Your task to perform on an android device: Open calendar and show me the fourth week of next month Image 0: 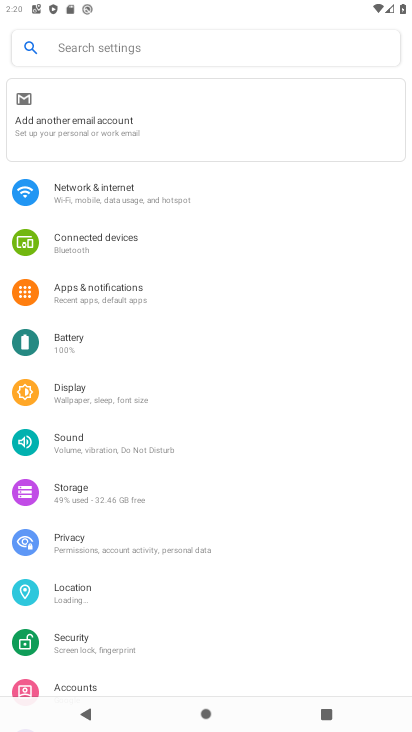
Step 0: press home button
Your task to perform on an android device: Open calendar and show me the fourth week of next month Image 1: 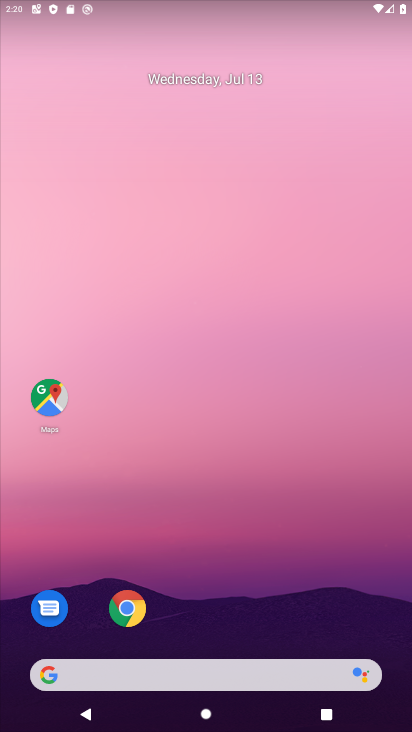
Step 1: drag from (245, 1) to (267, 138)
Your task to perform on an android device: Open calendar and show me the fourth week of next month Image 2: 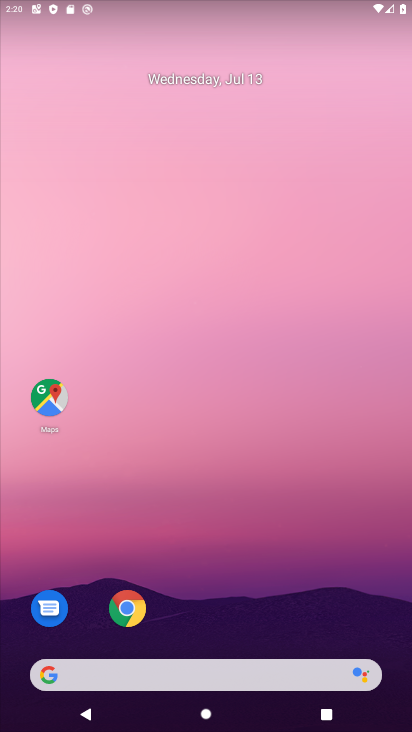
Step 2: drag from (233, 609) to (248, 105)
Your task to perform on an android device: Open calendar and show me the fourth week of next month Image 3: 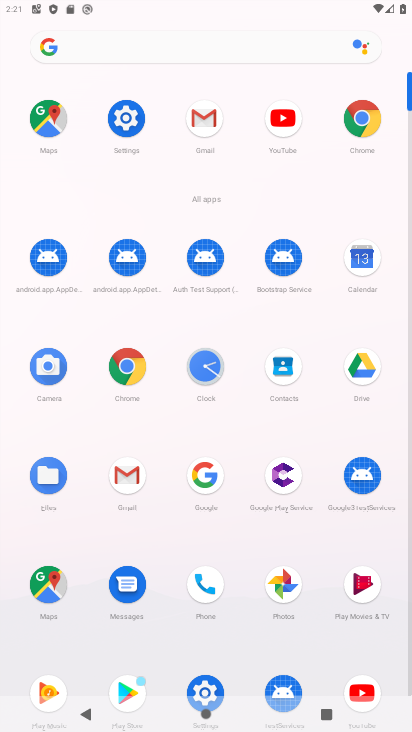
Step 3: click (354, 263)
Your task to perform on an android device: Open calendar and show me the fourth week of next month Image 4: 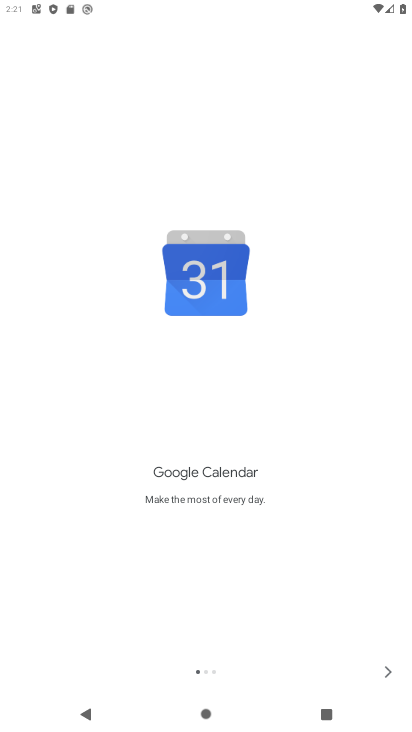
Step 4: click (387, 668)
Your task to perform on an android device: Open calendar and show me the fourth week of next month Image 5: 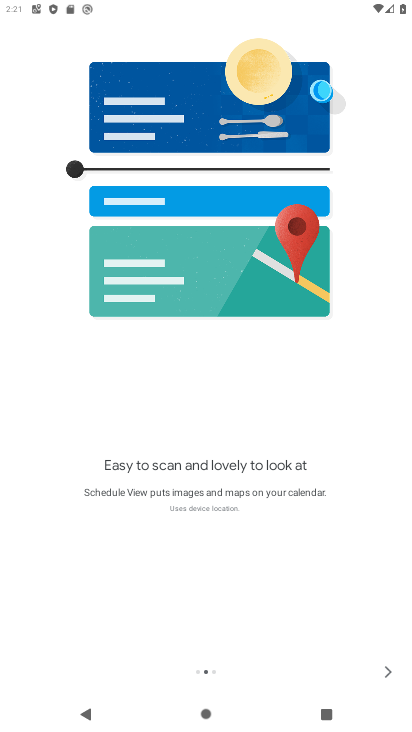
Step 5: click (387, 668)
Your task to perform on an android device: Open calendar and show me the fourth week of next month Image 6: 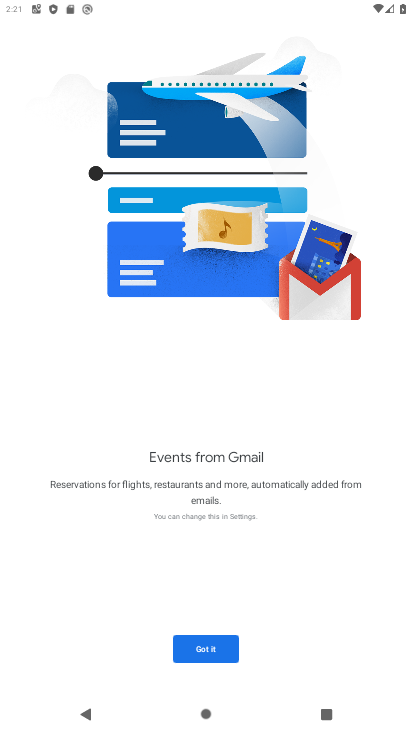
Step 6: click (223, 644)
Your task to perform on an android device: Open calendar and show me the fourth week of next month Image 7: 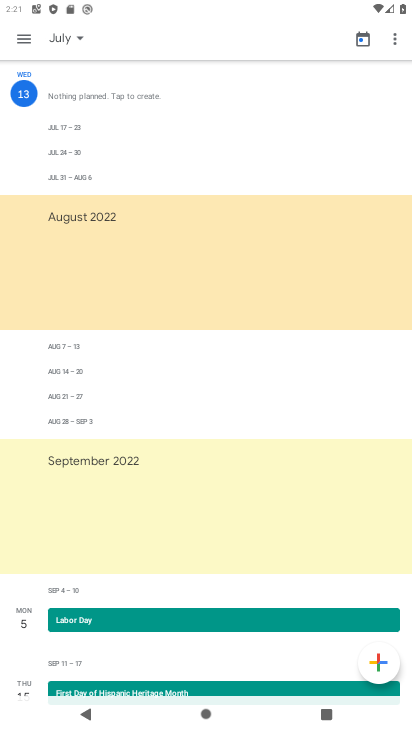
Step 7: click (64, 34)
Your task to perform on an android device: Open calendar and show me the fourth week of next month Image 8: 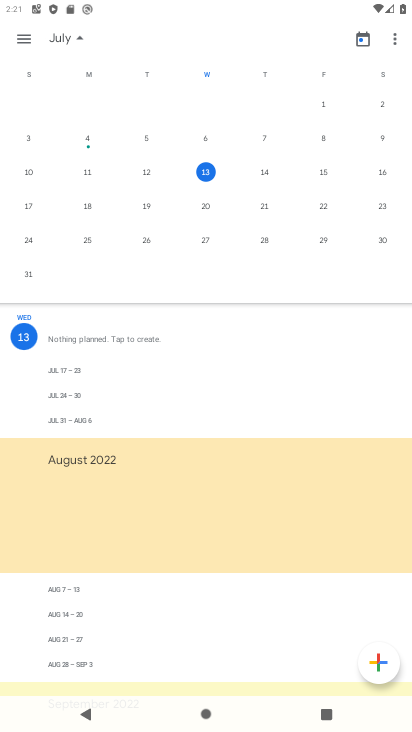
Step 8: drag from (252, 196) to (0, 167)
Your task to perform on an android device: Open calendar and show me the fourth week of next month Image 9: 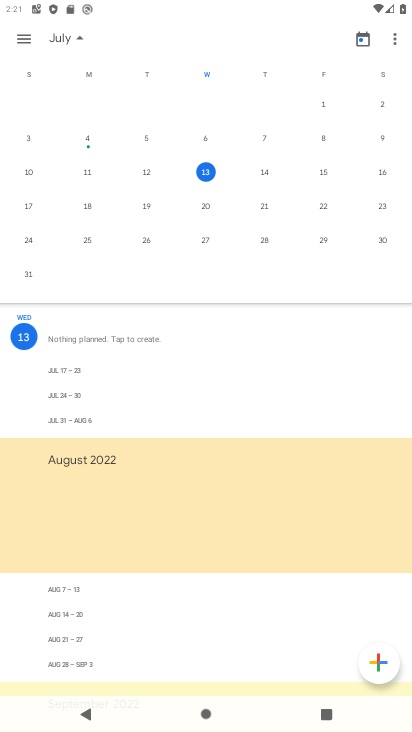
Step 9: drag from (228, 203) to (9, 190)
Your task to perform on an android device: Open calendar and show me the fourth week of next month Image 10: 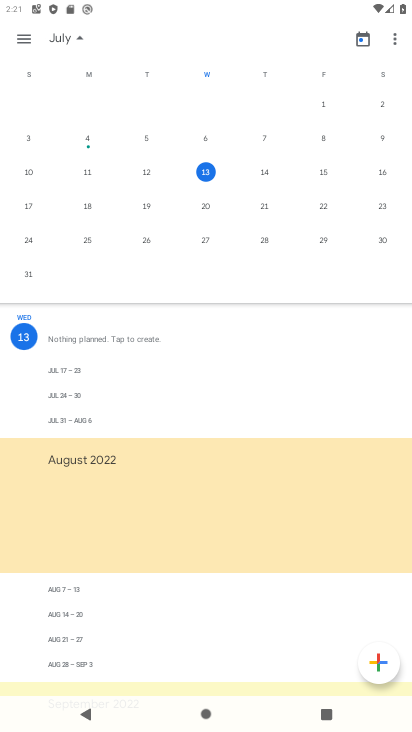
Step 10: drag from (347, 171) to (96, 166)
Your task to perform on an android device: Open calendar and show me the fourth week of next month Image 11: 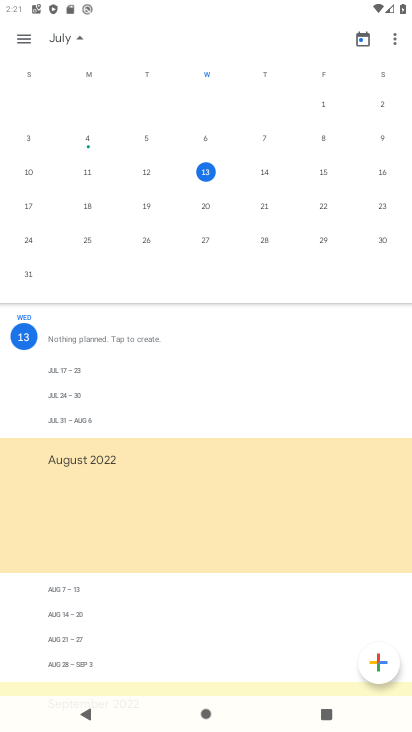
Step 11: drag from (274, 224) to (46, 177)
Your task to perform on an android device: Open calendar and show me the fourth week of next month Image 12: 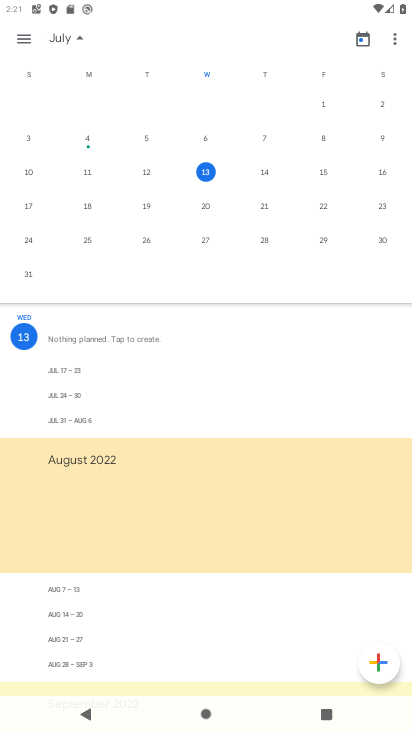
Step 12: drag from (364, 182) to (1, 145)
Your task to perform on an android device: Open calendar and show me the fourth week of next month Image 13: 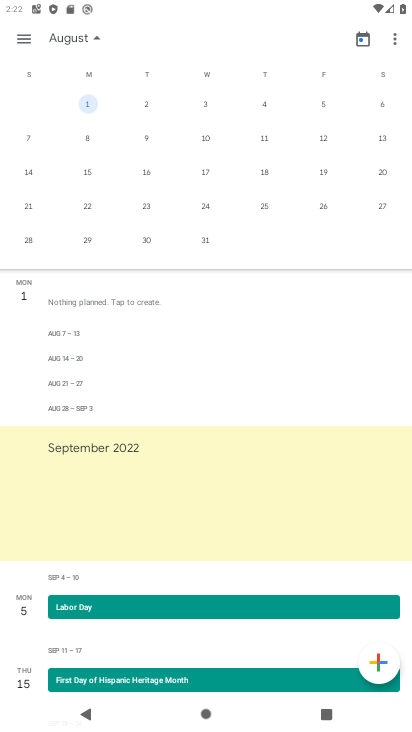
Step 13: click (29, 205)
Your task to perform on an android device: Open calendar and show me the fourth week of next month Image 14: 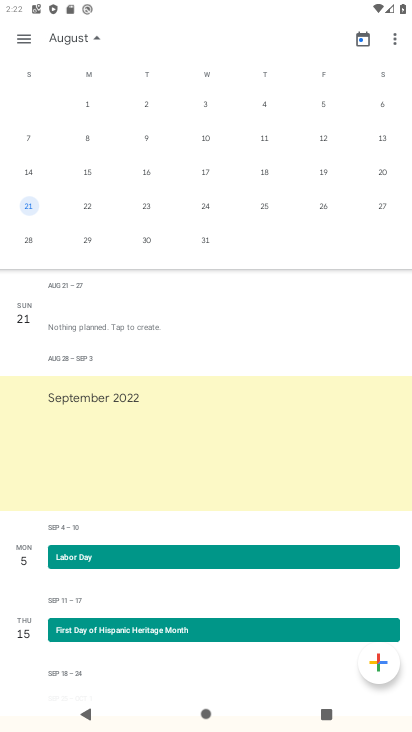
Step 14: click (20, 27)
Your task to perform on an android device: Open calendar and show me the fourth week of next month Image 15: 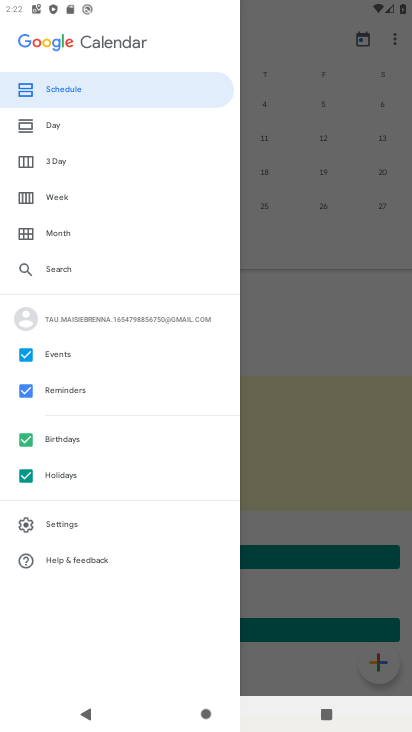
Step 15: click (57, 199)
Your task to perform on an android device: Open calendar and show me the fourth week of next month Image 16: 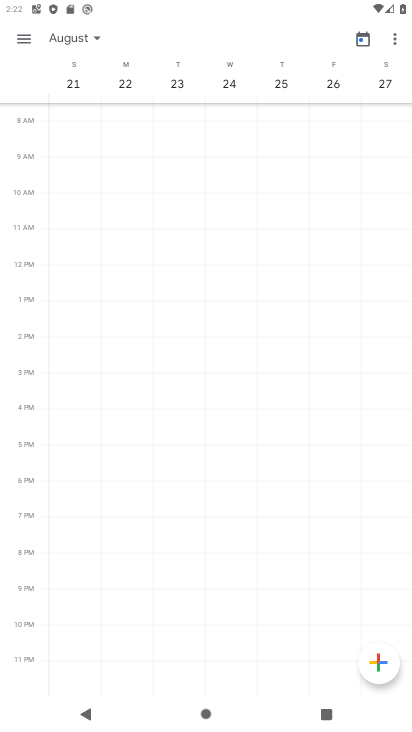
Step 16: task complete